Your task to perform on an android device: turn off improve location accuracy Image 0: 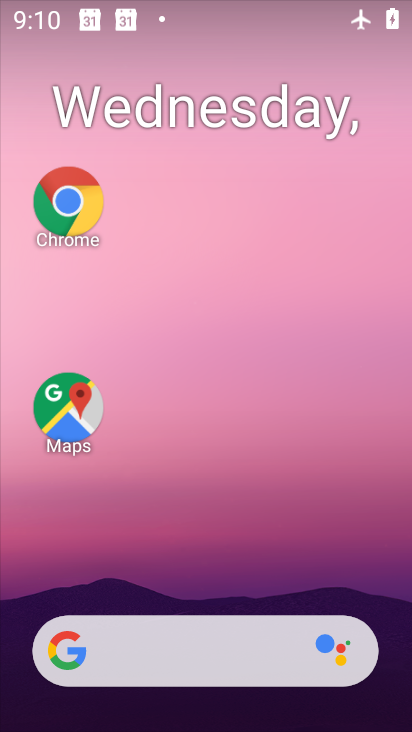
Step 0: drag from (227, 574) to (178, 48)
Your task to perform on an android device: turn off improve location accuracy Image 1: 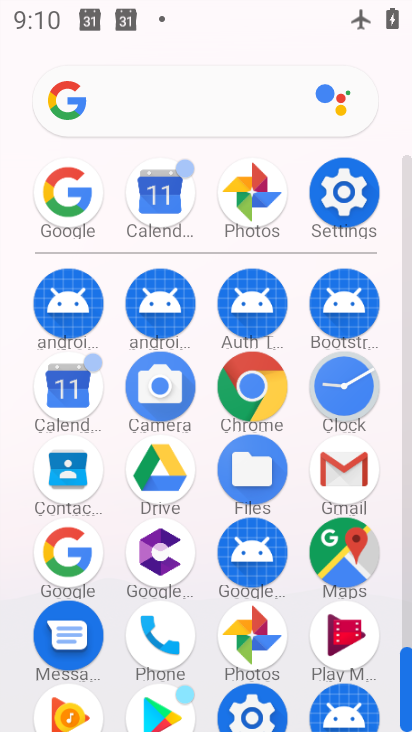
Step 1: click (334, 180)
Your task to perform on an android device: turn off improve location accuracy Image 2: 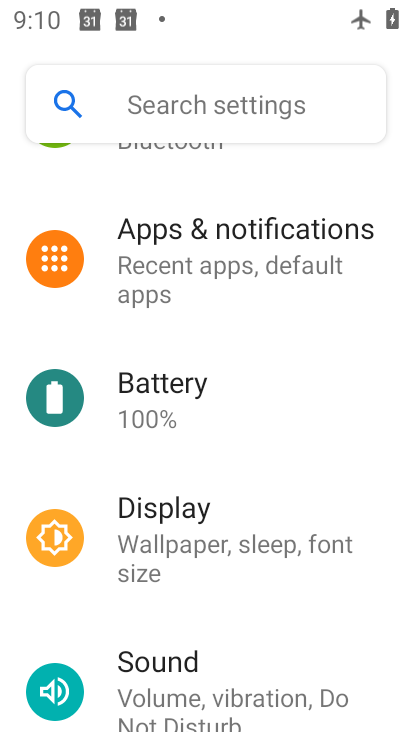
Step 2: drag from (198, 598) to (174, 104)
Your task to perform on an android device: turn off improve location accuracy Image 3: 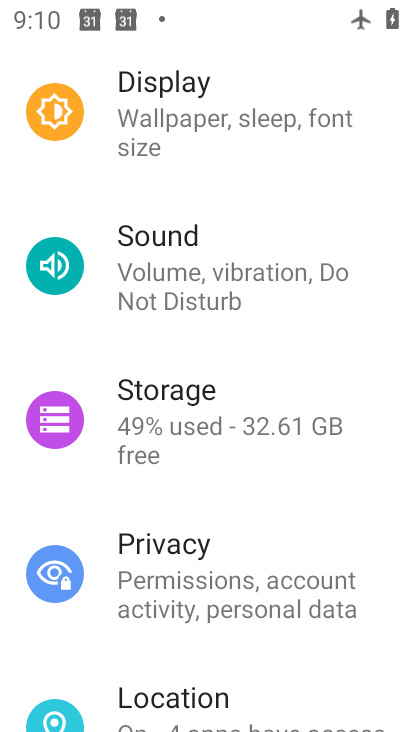
Step 3: click (103, 685)
Your task to perform on an android device: turn off improve location accuracy Image 4: 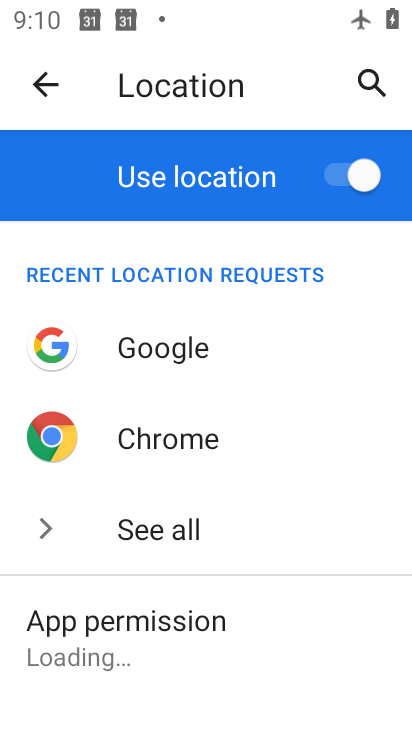
Step 4: drag from (151, 603) to (119, 177)
Your task to perform on an android device: turn off improve location accuracy Image 5: 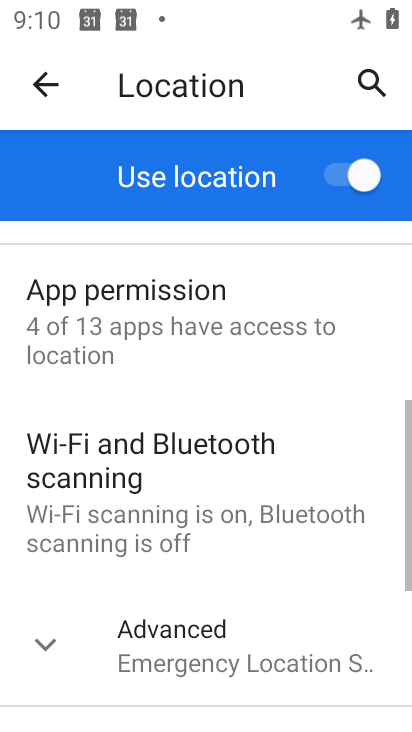
Step 5: click (261, 620)
Your task to perform on an android device: turn off improve location accuracy Image 6: 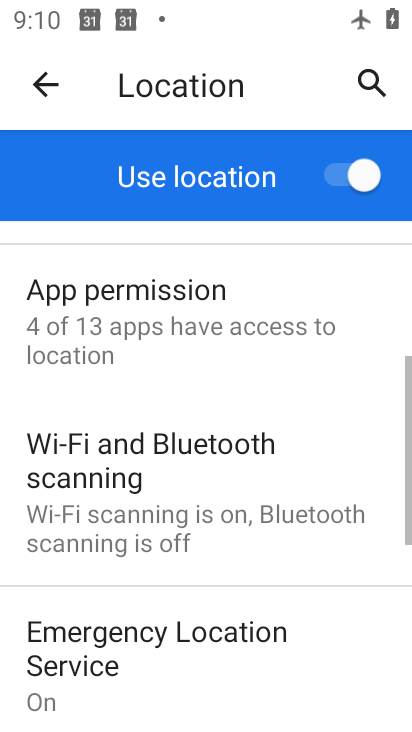
Step 6: drag from (261, 620) to (227, 148)
Your task to perform on an android device: turn off improve location accuracy Image 7: 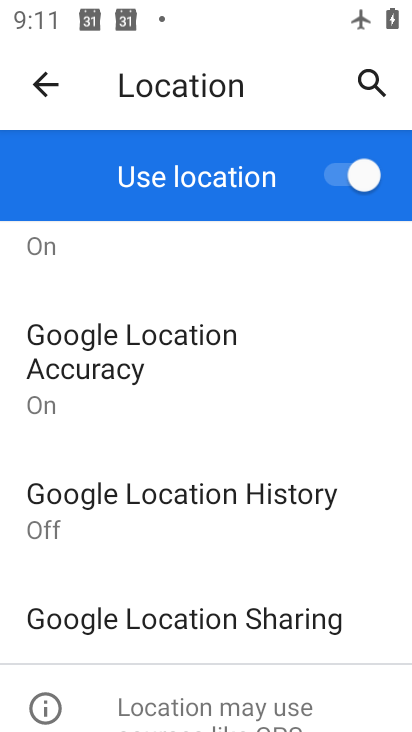
Step 7: click (168, 351)
Your task to perform on an android device: turn off improve location accuracy Image 8: 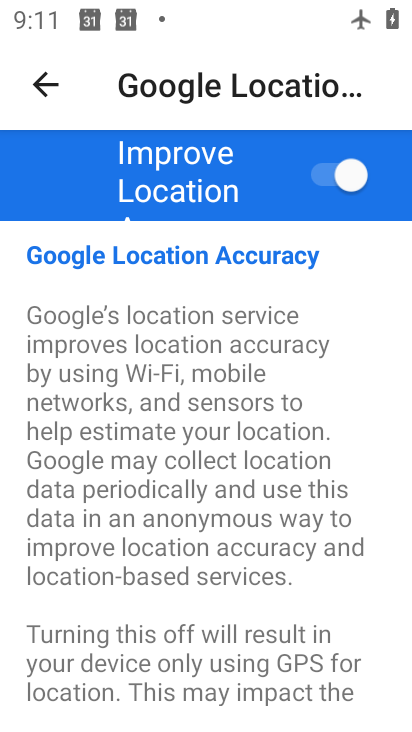
Step 8: click (343, 179)
Your task to perform on an android device: turn off improve location accuracy Image 9: 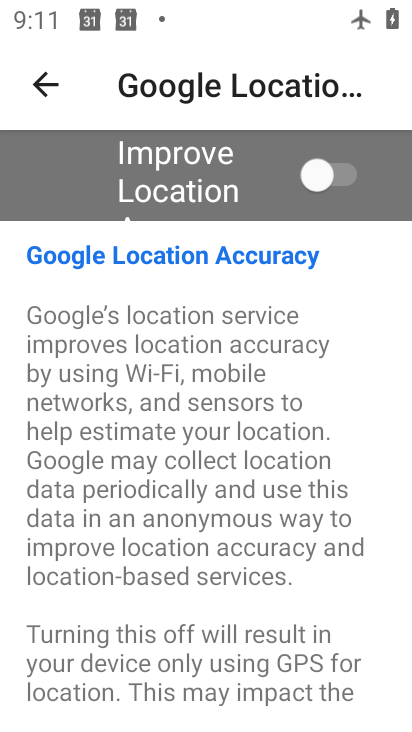
Step 9: task complete